Your task to perform on an android device: Look up the best rated hair dryer on Walmart. Image 0: 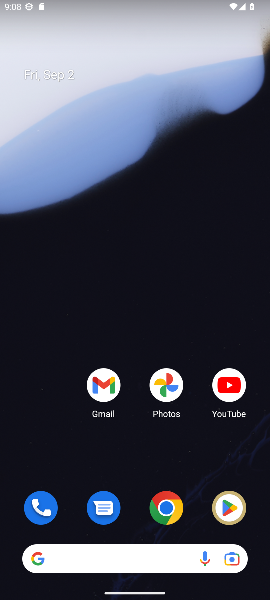
Step 0: drag from (130, 460) to (145, 61)
Your task to perform on an android device: Look up the best rated hair dryer on Walmart. Image 1: 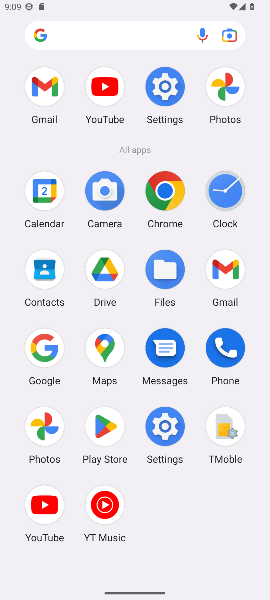
Step 1: click (166, 189)
Your task to perform on an android device: Look up the best rated hair dryer on Walmart. Image 2: 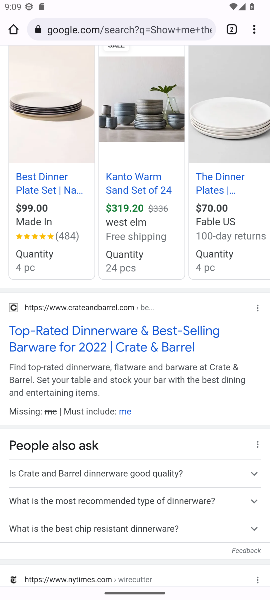
Step 2: click (115, 28)
Your task to perform on an android device: Look up the best rated hair dryer on Walmart. Image 3: 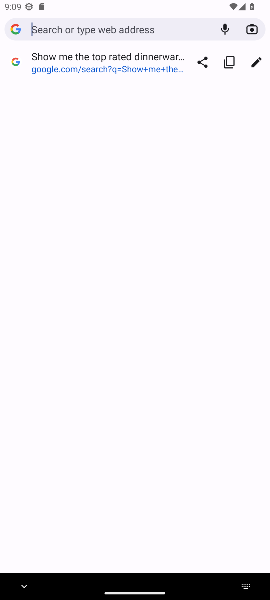
Step 3: type "Walmart."
Your task to perform on an android device: Look up the best rated hair dryer on Walmart. Image 4: 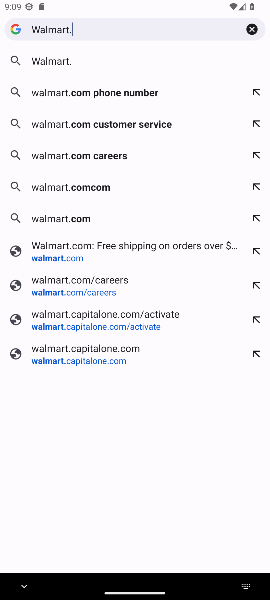
Step 4: click (59, 61)
Your task to perform on an android device: Look up the best rated hair dryer on Walmart. Image 5: 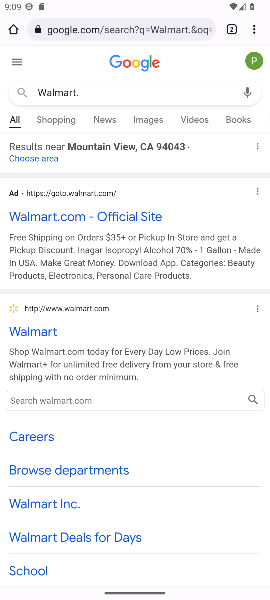
Step 5: click (59, 216)
Your task to perform on an android device: Look up the best rated hair dryer on Walmart. Image 6: 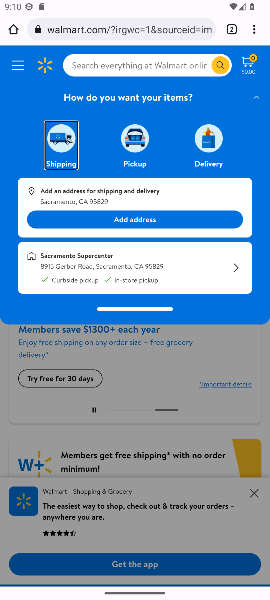
Step 6: click (129, 68)
Your task to perform on an android device: Look up the best rated hair dryer on Walmart. Image 7: 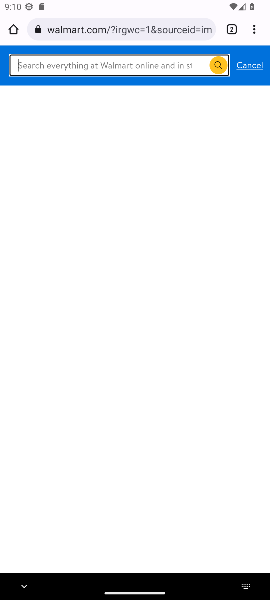
Step 7: type " best rated hair dryer"
Your task to perform on an android device: Look up the best rated hair dryer on Walmart. Image 8: 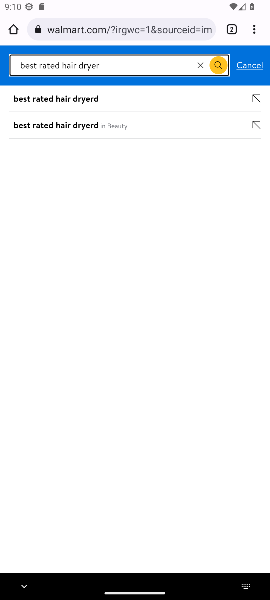
Step 8: click (73, 98)
Your task to perform on an android device: Look up the best rated hair dryer on Walmart. Image 9: 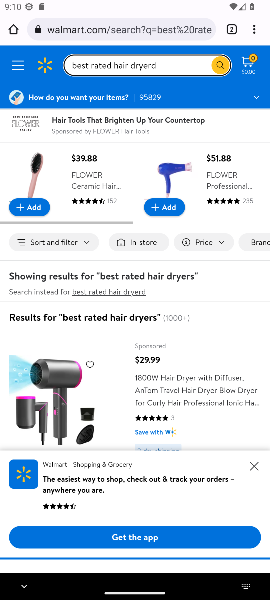
Step 9: task complete